Your task to perform on an android device: change your default location settings in chrome Image 0: 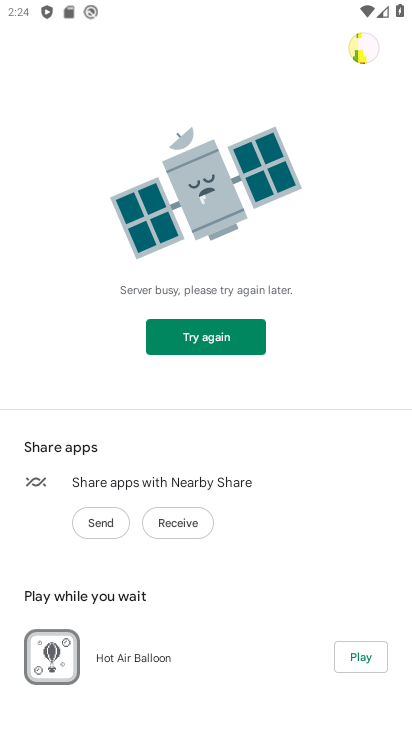
Step 0: press home button
Your task to perform on an android device: change your default location settings in chrome Image 1: 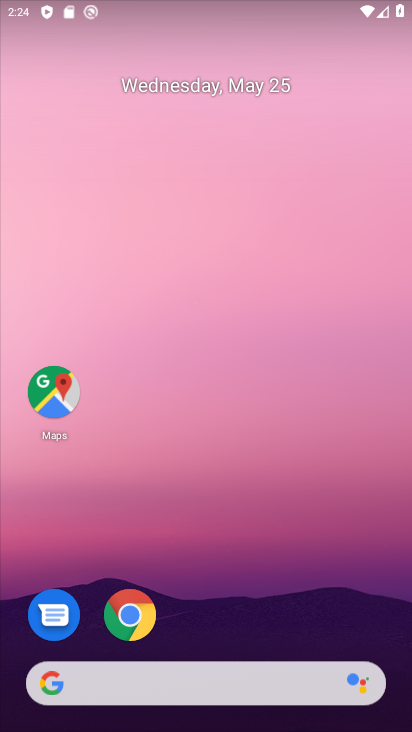
Step 1: click (120, 618)
Your task to perform on an android device: change your default location settings in chrome Image 2: 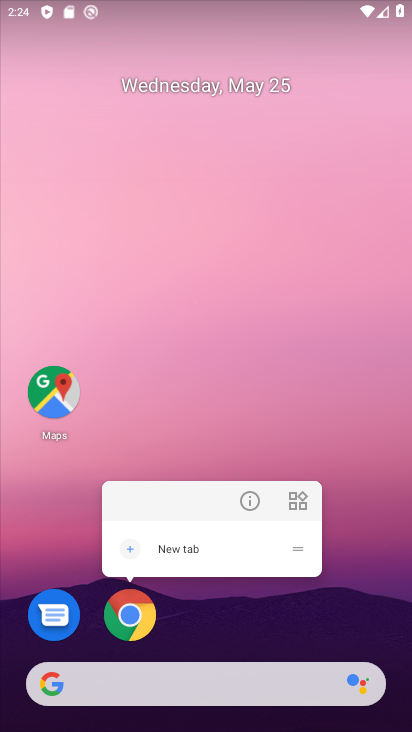
Step 2: click (124, 613)
Your task to perform on an android device: change your default location settings in chrome Image 3: 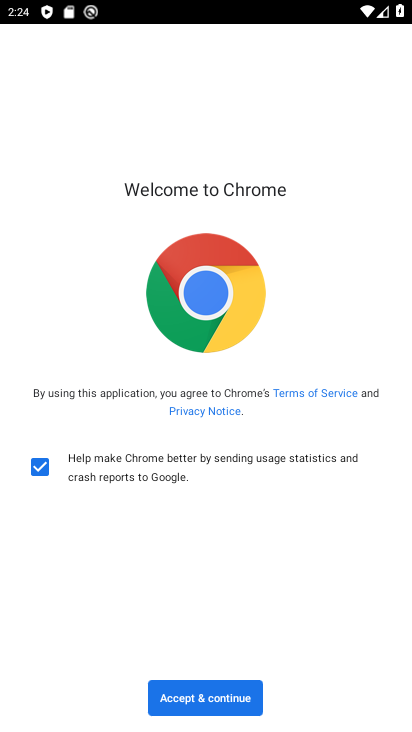
Step 3: click (201, 690)
Your task to perform on an android device: change your default location settings in chrome Image 4: 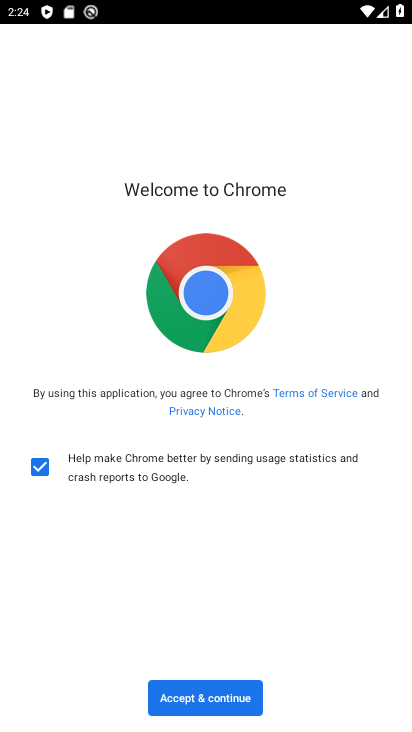
Step 4: click (203, 690)
Your task to perform on an android device: change your default location settings in chrome Image 5: 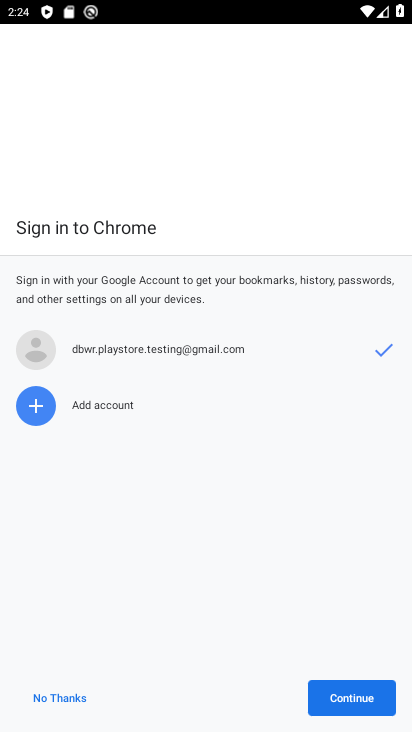
Step 5: click (326, 687)
Your task to perform on an android device: change your default location settings in chrome Image 6: 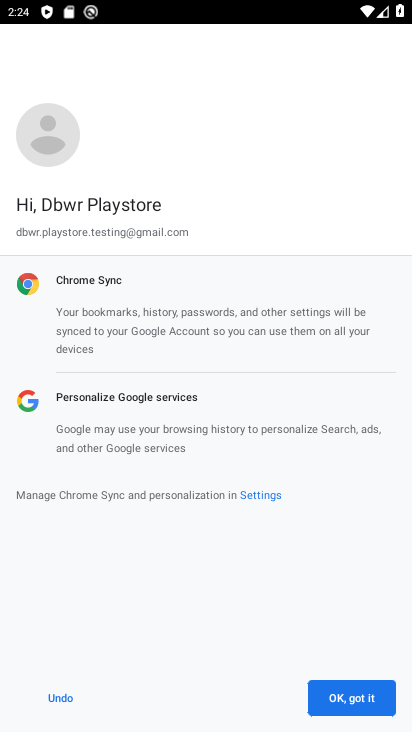
Step 6: click (348, 690)
Your task to perform on an android device: change your default location settings in chrome Image 7: 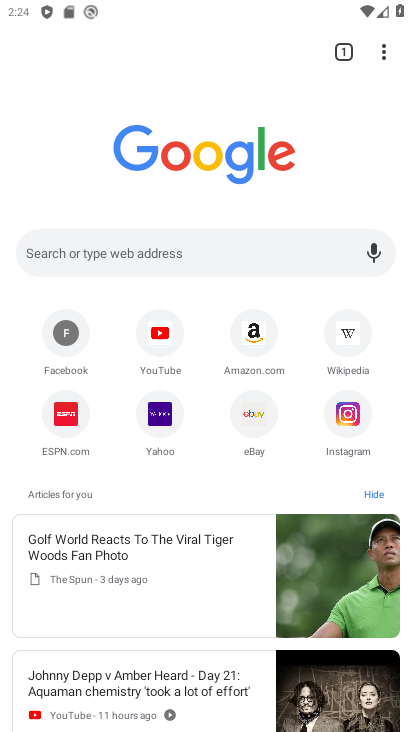
Step 7: click (166, 257)
Your task to perform on an android device: change your default location settings in chrome Image 8: 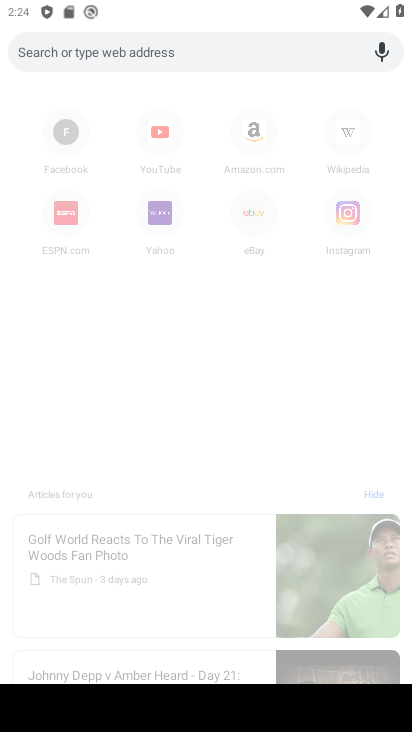
Step 8: press back button
Your task to perform on an android device: change your default location settings in chrome Image 9: 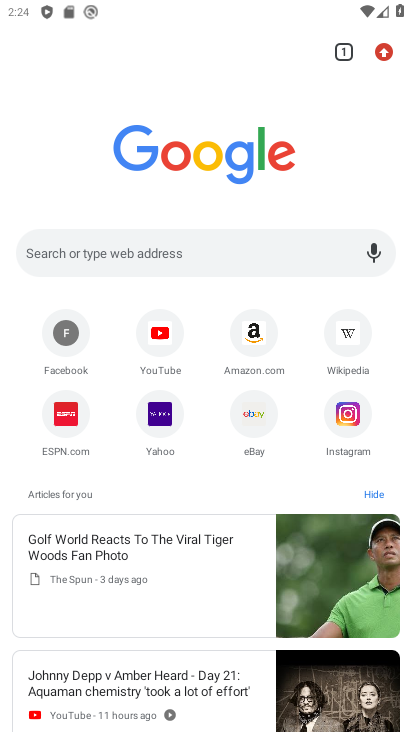
Step 9: drag from (292, 140) to (312, 413)
Your task to perform on an android device: change your default location settings in chrome Image 10: 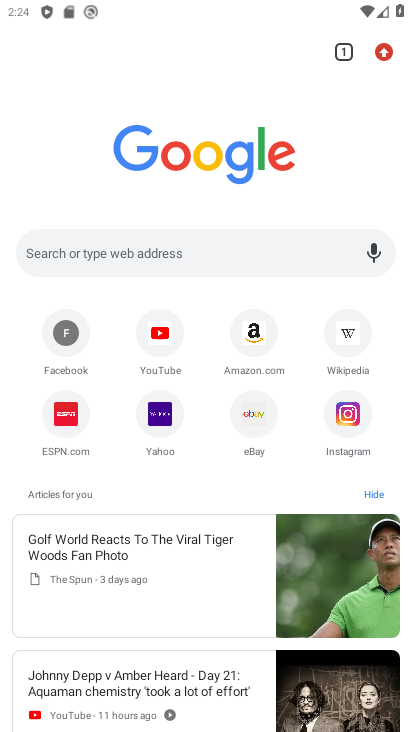
Step 10: click (377, 49)
Your task to perform on an android device: change your default location settings in chrome Image 11: 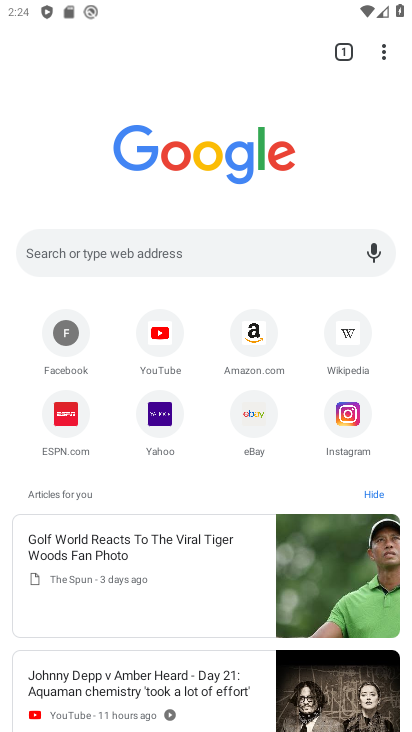
Step 11: click (383, 49)
Your task to perform on an android device: change your default location settings in chrome Image 12: 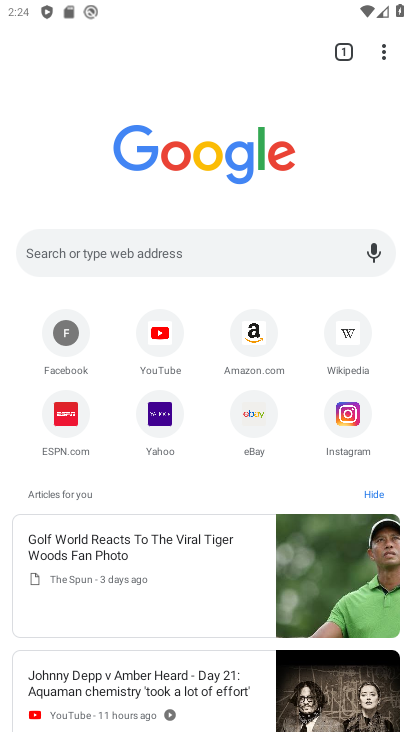
Step 12: click (383, 49)
Your task to perform on an android device: change your default location settings in chrome Image 13: 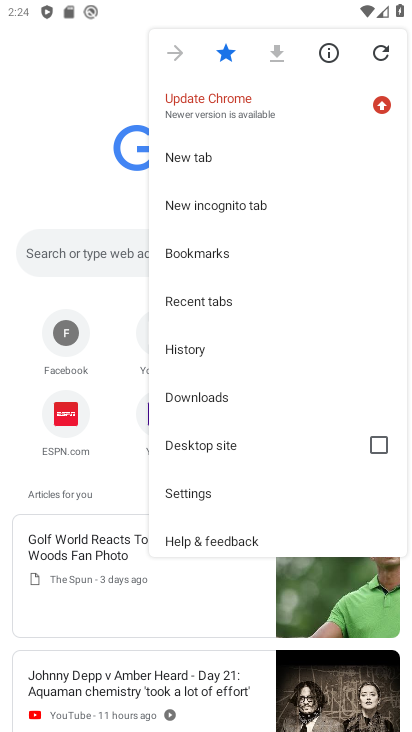
Step 13: click (202, 490)
Your task to perform on an android device: change your default location settings in chrome Image 14: 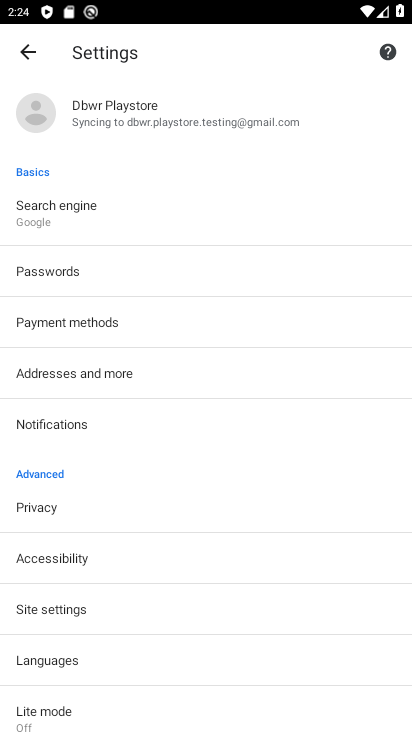
Step 14: click (24, 616)
Your task to perform on an android device: change your default location settings in chrome Image 15: 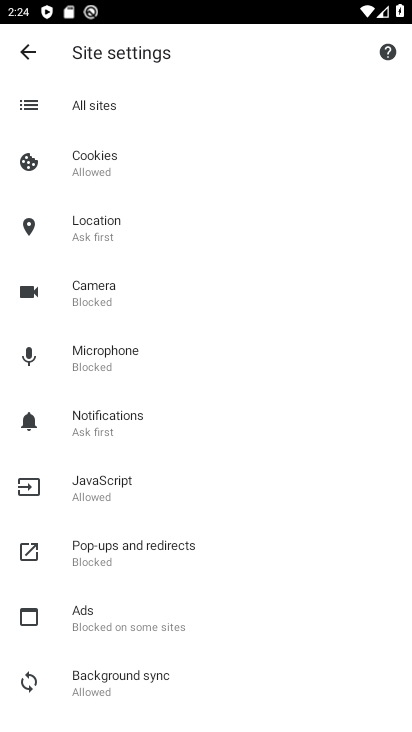
Step 15: click (105, 219)
Your task to perform on an android device: change your default location settings in chrome Image 16: 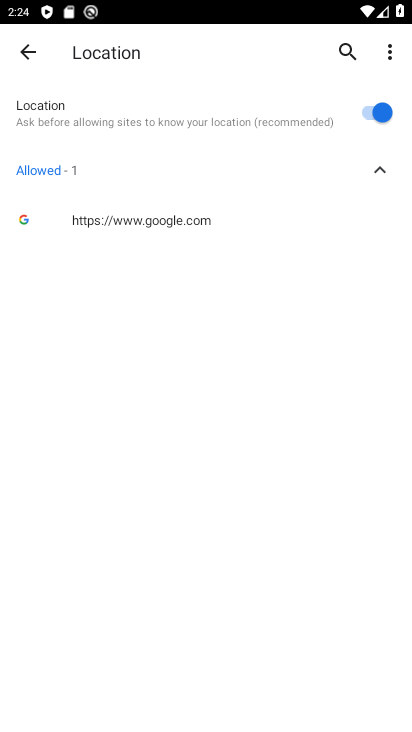
Step 16: task complete